Your task to perform on an android device: Go to location settings Image 0: 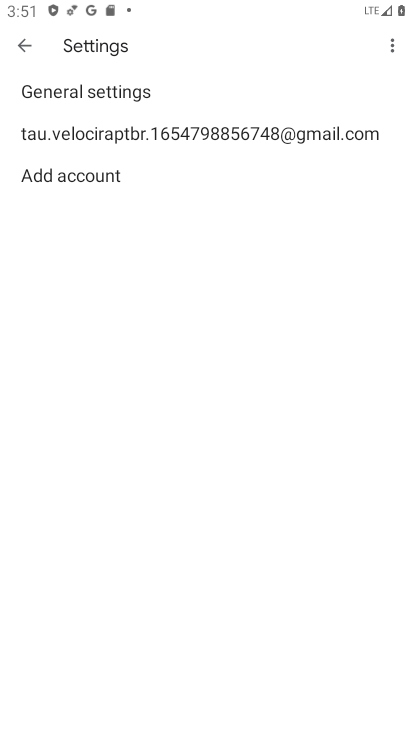
Step 0: drag from (232, 396) to (219, 232)
Your task to perform on an android device: Go to location settings Image 1: 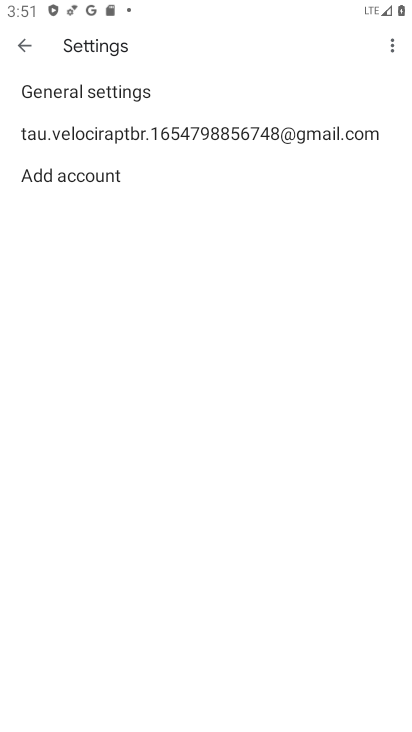
Step 1: click (19, 44)
Your task to perform on an android device: Go to location settings Image 2: 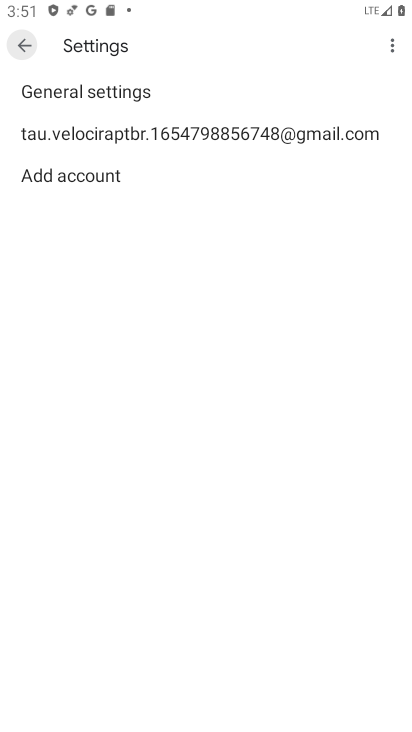
Step 2: click (19, 43)
Your task to perform on an android device: Go to location settings Image 3: 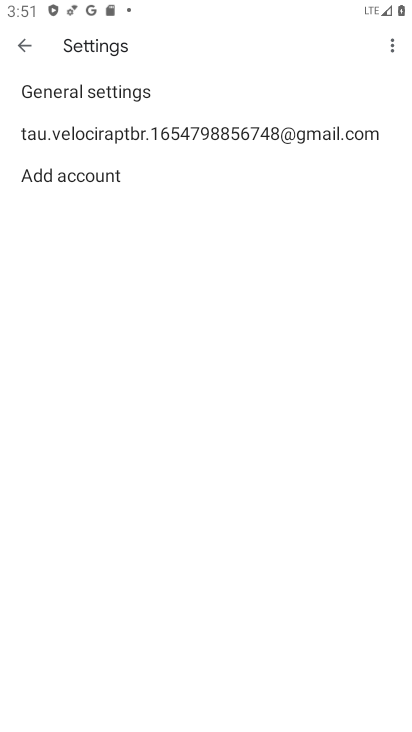
Step 3: click (24, 48)
Your task to perform on an android device: Go to location settings Image 4: 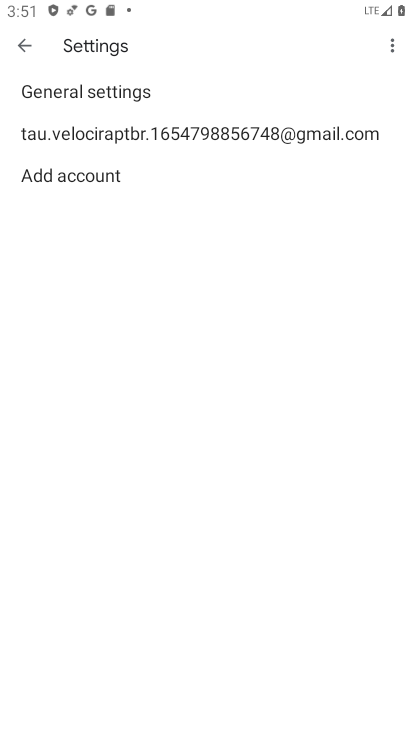
Step 4: click (25, 42)
Your task to perform on an android device: Go to location settings Image 5: 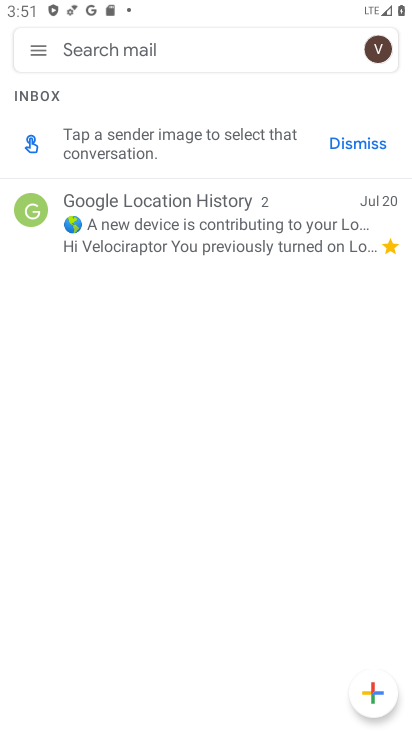
Step 5: click (43, 50)
Your task to perform on an android device: Go to location settings Image 6: 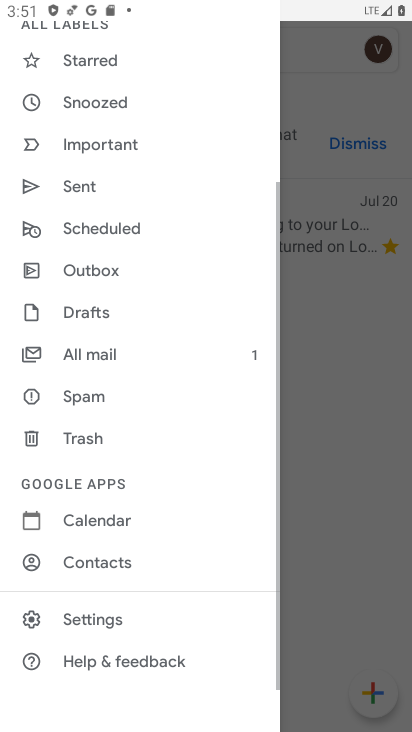
Step 6: press back button
Your task to perform on an android device: Go to location settings Image 7: 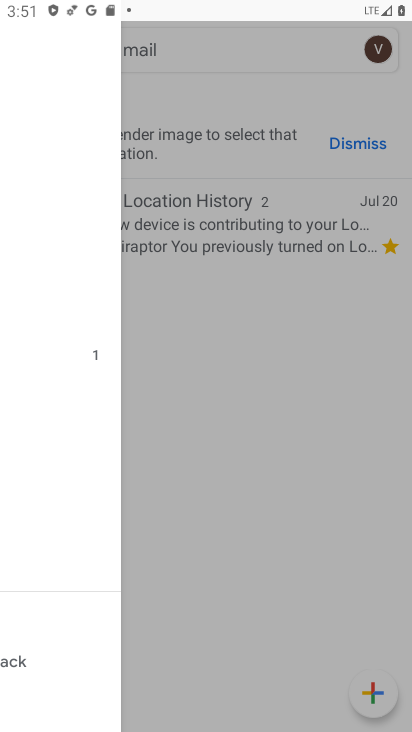
Step 7: press back button
Your task to perform on an android device: Go to location settings Image 8: 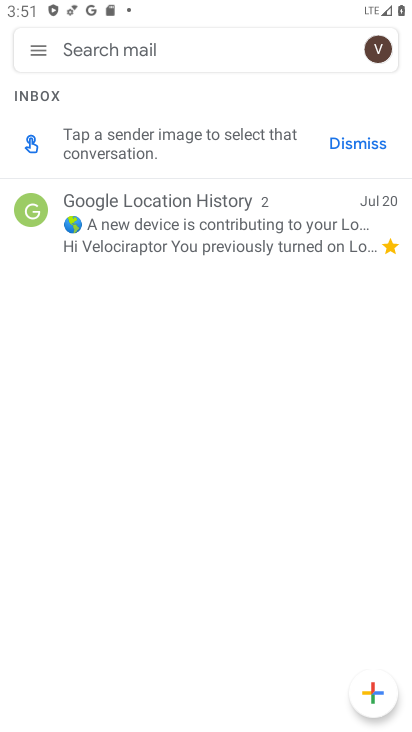
Step 8: press back button
Your task to perform on an android device: Go to location settings Image 9: 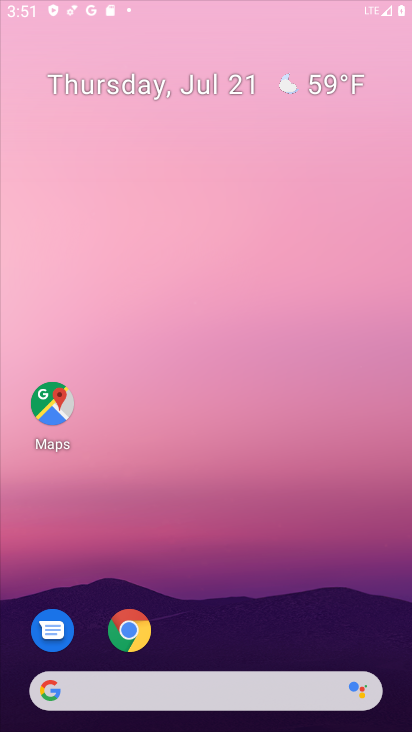
Step 9: press back button
Your task to perform on an android device: Go to location settings Image 10: 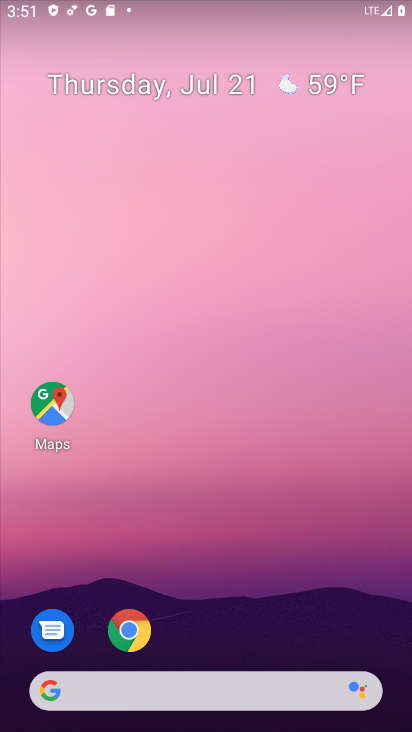
Step 10: press back button
Your task to perform on an android device: Go to location settings Image 11: 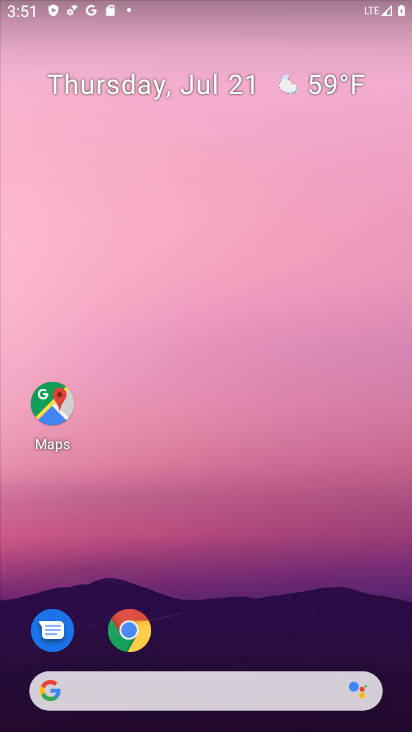
Step 11: drag from (253, 625) to (216, 165)
Your task to perform on an android device: Go to location settings Image 12: 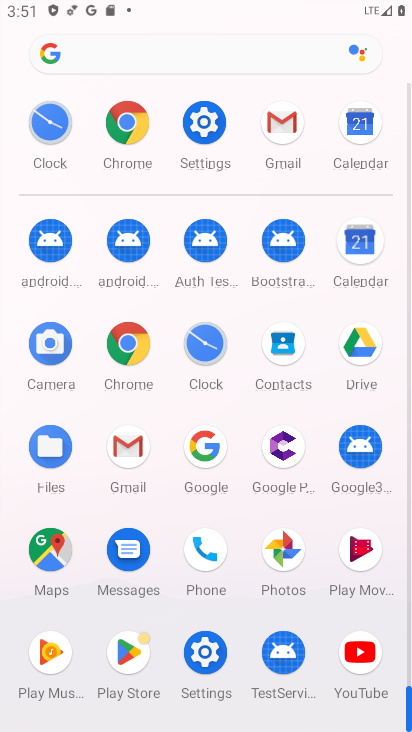
Step 12: click (207, 109)
Your task to perform on an android device: Go to location settings Image 13: 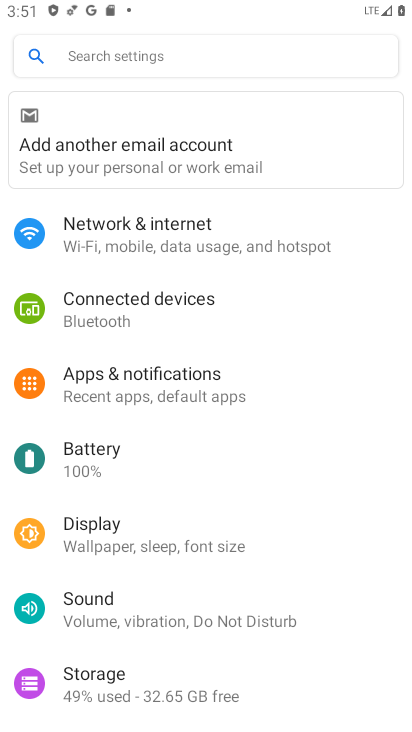
Step 13: drag from (147, 604) to (143, 285)
Your task to perform on an android device: Go to location settings Image 14: 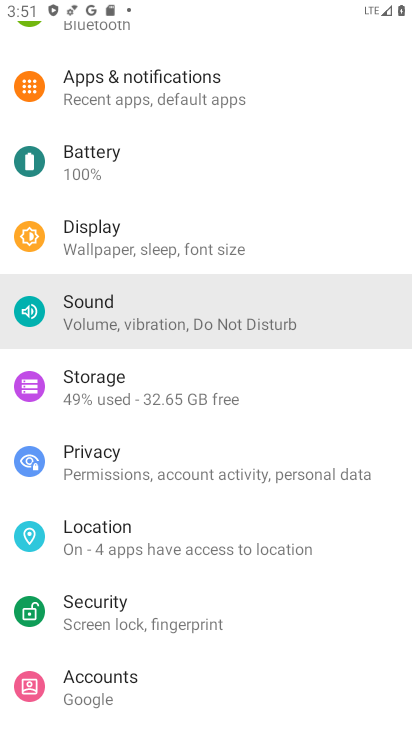
Step 14: drag from (135, 532) to (151, 263)
Your task to perform on an android device: Go to location settings Image 15: 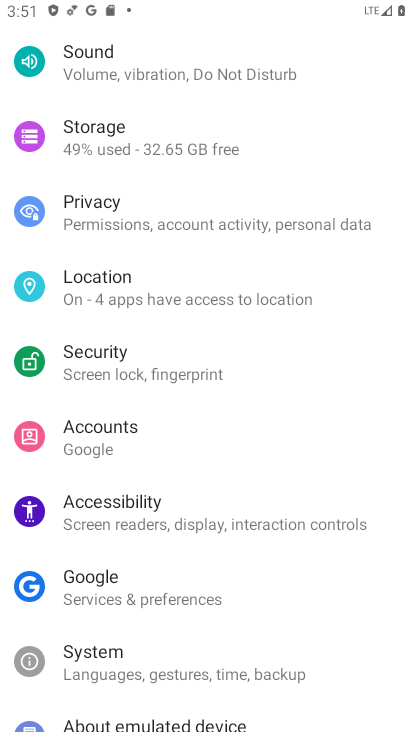
Step 15: drag from (160, 589) to (169, 291)
Your task to perform on an android device: Go to location settings Image 16: 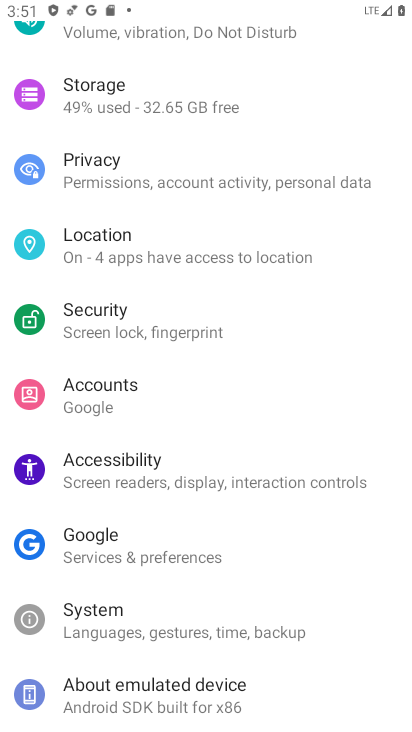
Step 16: click (156, 247)
Your task to perform on an android device: Go to location settings Image 17: 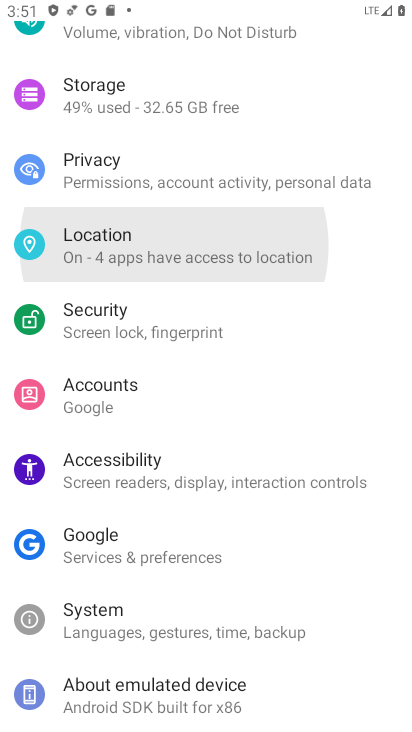
Step 17: click (156, 247)
Your task to perform on an android device: Go to location settings Image 18: 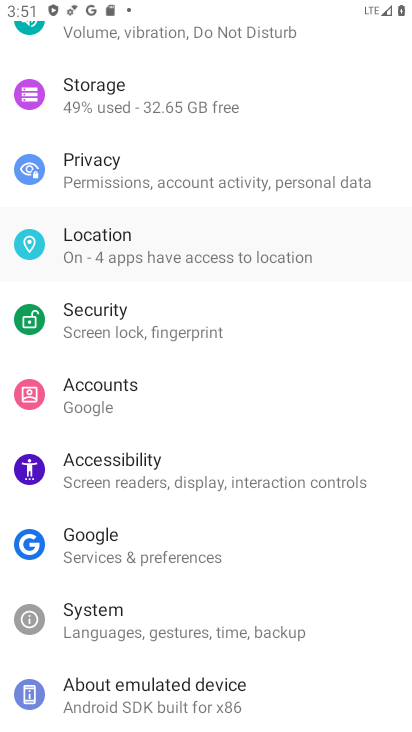
Step 18: click (156, 246)
Your task to perform on an android device: Go to location settings Image 19: 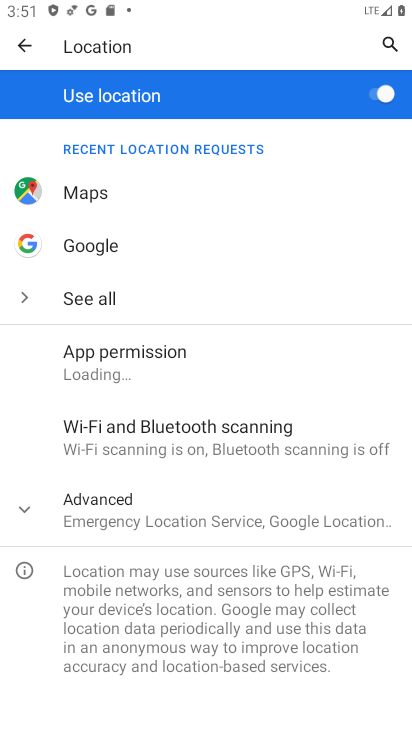
Step 19: task complete